Your task to perform on an android device: turn off location Image 0: 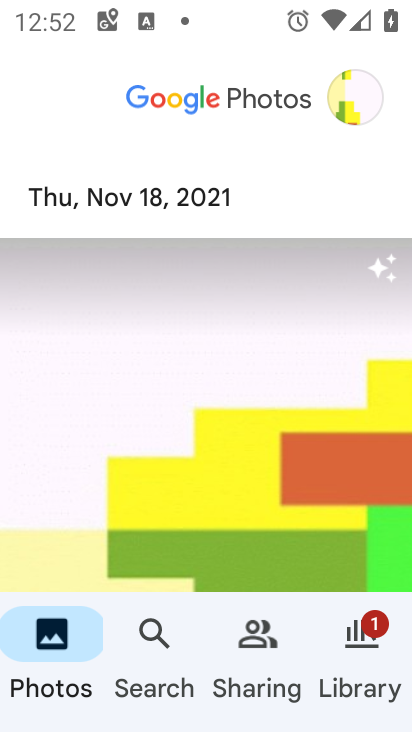
Step 0: press home button
Your task to perform on an android device: turn off location Image 1: 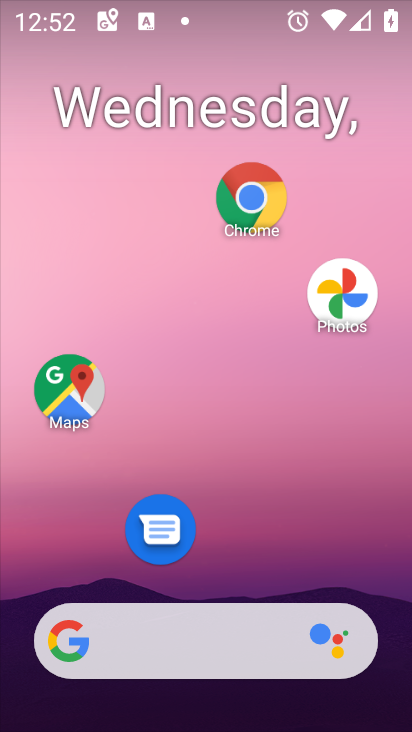
Step 1: drag from (335, 561) to (324, 257)
Your task to perform on an android device: turn off location Image 2: 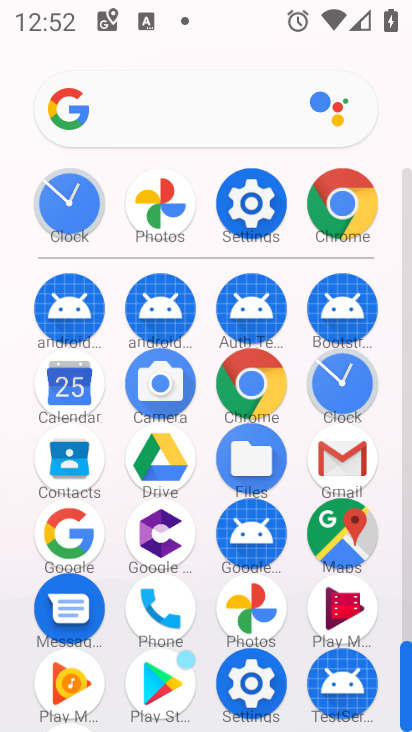
Step 2: click (264, 227)
Your task to perform on an android device: turn off location Image 3: 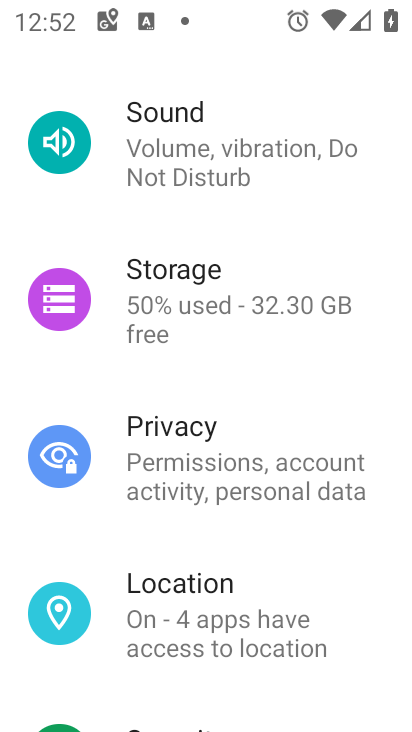
Step 3: click (187, 605)
Your task to perform on an android device: turn off location Image 4: 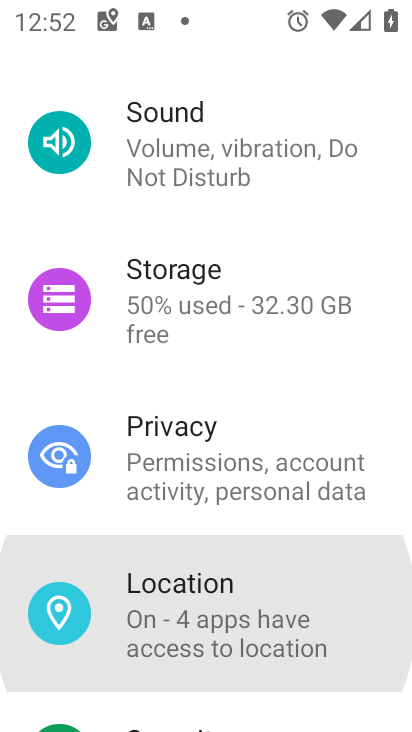
Step 4: click (187, 605)
Your task to perform on an android device: turn off location Image 5: 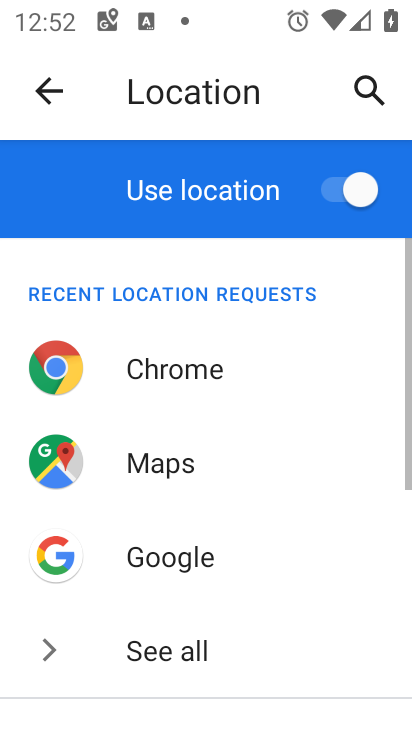
Step 5: click (337, 207)
Your task to perform on an android device: turn off location Image 6: 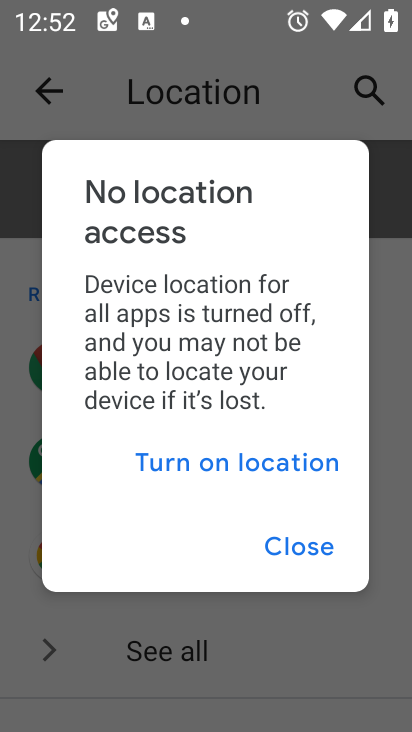
Step 6: click (302, 554)
Your task to perform on an android device: turn off location Image 7: 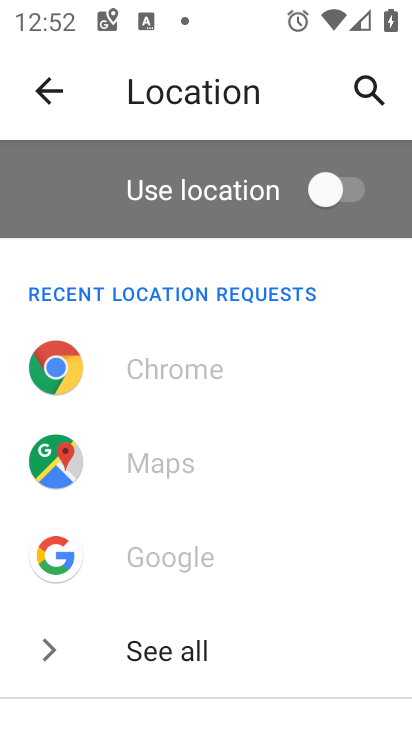
Step 7: task complete